Your task to perform on an android device: read, delete, or share a saved page in the chrome app Image 0: 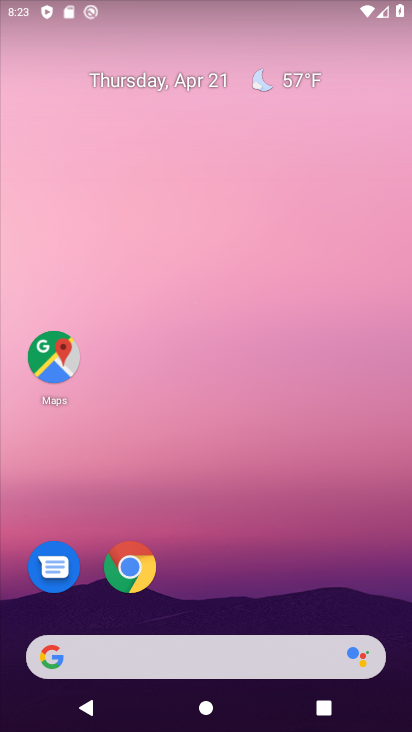
Step 0: click (140, 585)
Your task to perform on an android device: read, delete, or share a saved page in the chrome app Image 1: 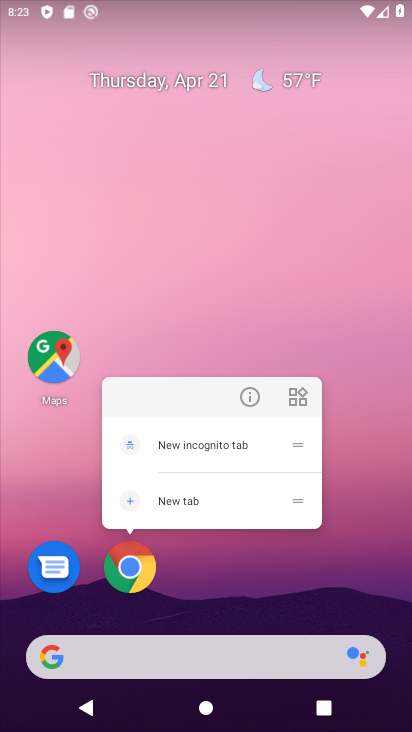
Step 1: click (131, 570)
Your task to perform on an android device: read, delete, or share a saved page in the chrome app Image 2: 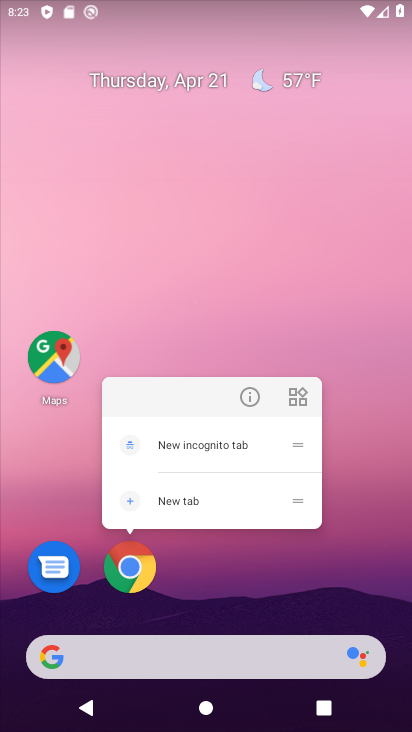
Step 2: click (131, 570)
Your task to perform on an android device: read, delete, or share a saved page in the chrome app Image 3: 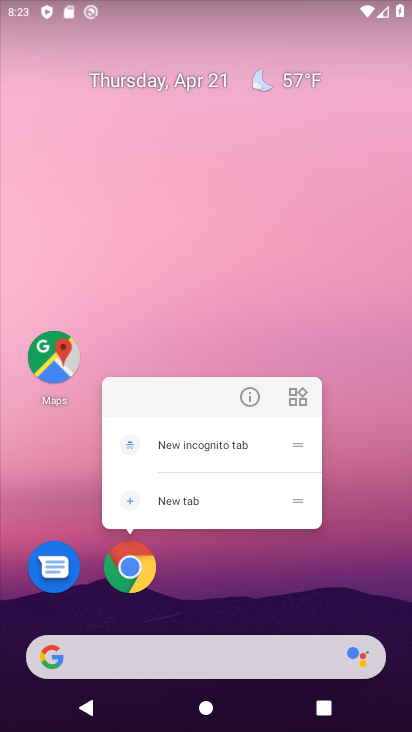
Step 3: click (131, 570)
Your task to perform on an android device: read, delete, or share a saved page in the chrome app Image 4: 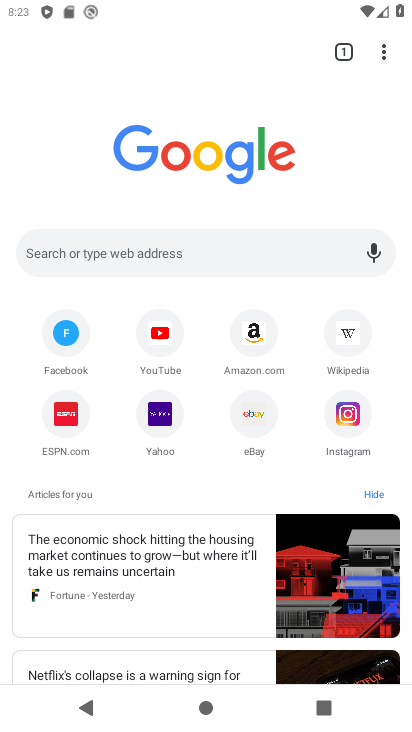
Step 4: task complete